Your task to perform on an android device: Open Chrome and go to settings Image 0: 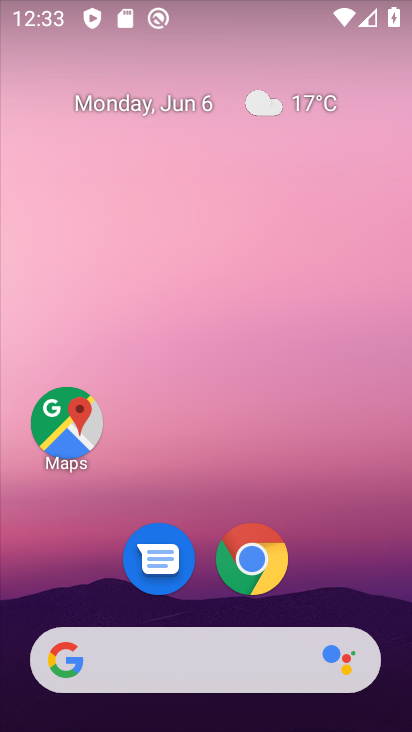
Step 0: drag from (250, 602) to (313, 31)
Your task to perform on an android device: Open Chrome and go to settings Image 1: 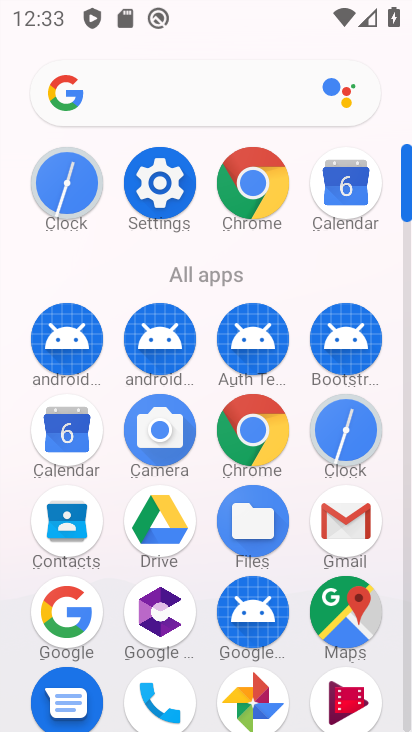
Step 1: click (268, 430)
Your task to perform on an android device: Open Chrome and go to settings Image 2: 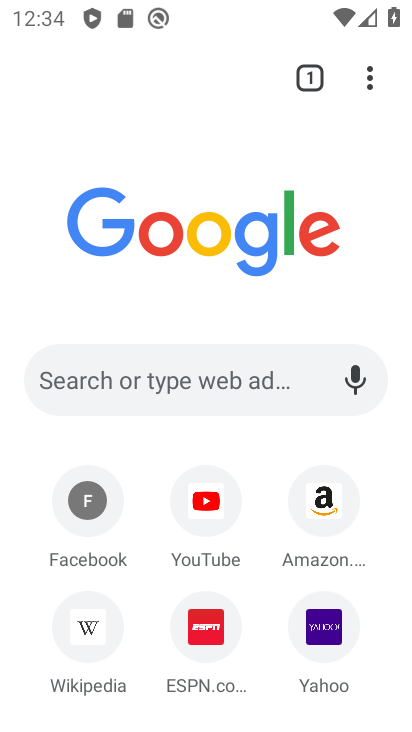
Step 2: click (385, 75)
Your task to perform on an android device: Open Chrome and go to settings Image 3: 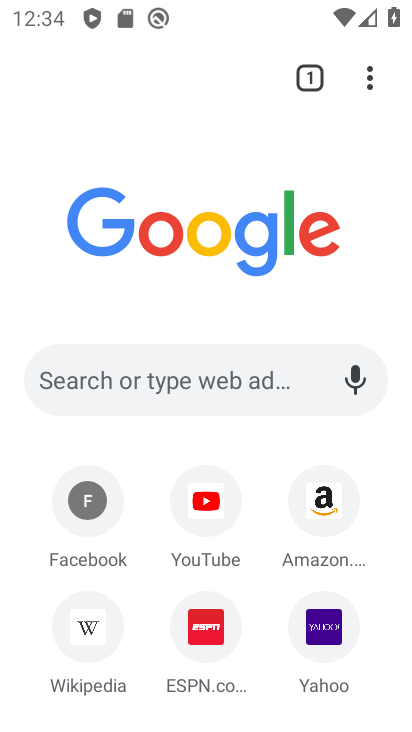
Step 3: click (378, 79)
Your task to perform on an android device: Open Chrome and go to settings Image 4: 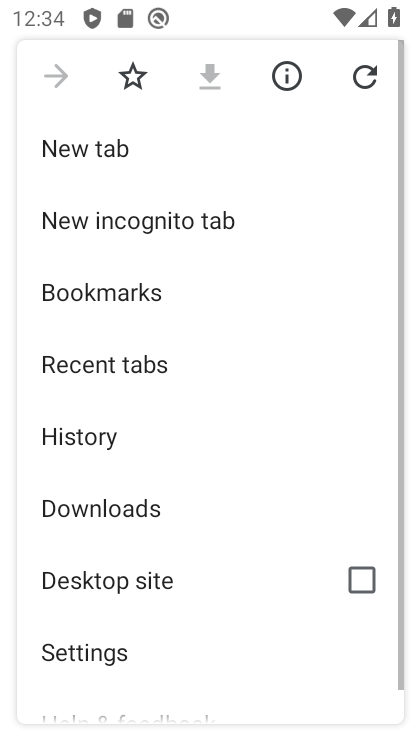
Step 4: drag from (258, 530) to (272, 140)
Your task to perform on an android device: Open Chrome and go to settings Image 5: 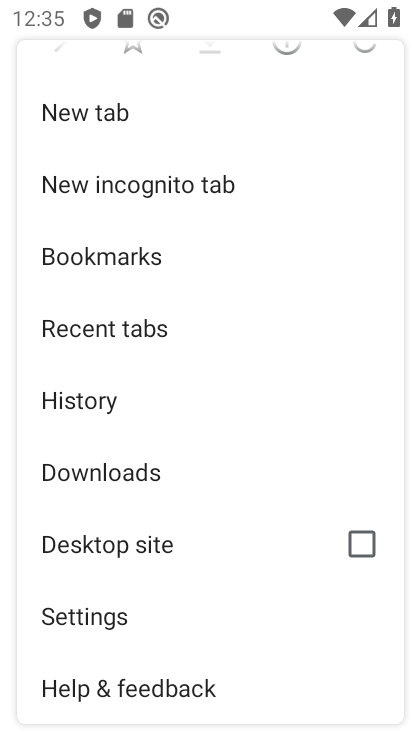
Step 5: click (174, 608)
Your task to perform on an android device: Open Chrome and go to settings Image 6: 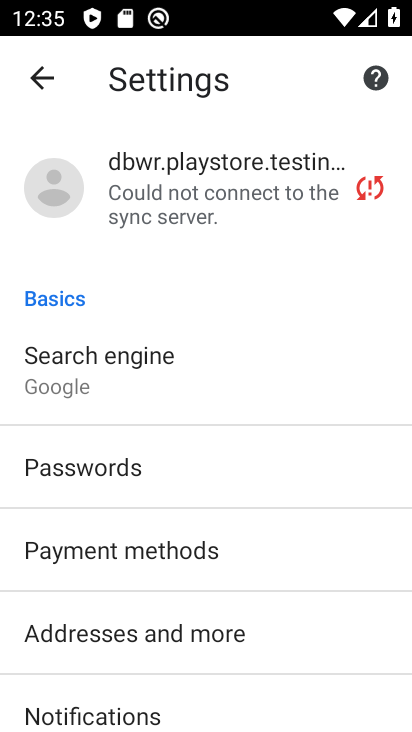
Step 6: task complete